Your task to perform on an android device: star an email in the gmail app Image 0: 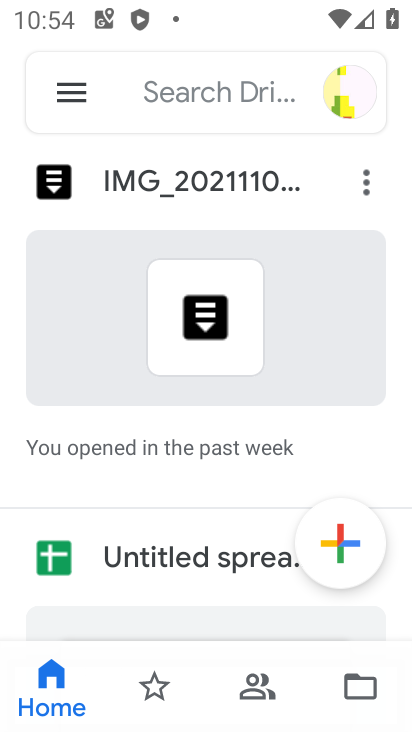
Step 0: press home button
Your task to perform on an android device: star an email in the gmail app Image 1: 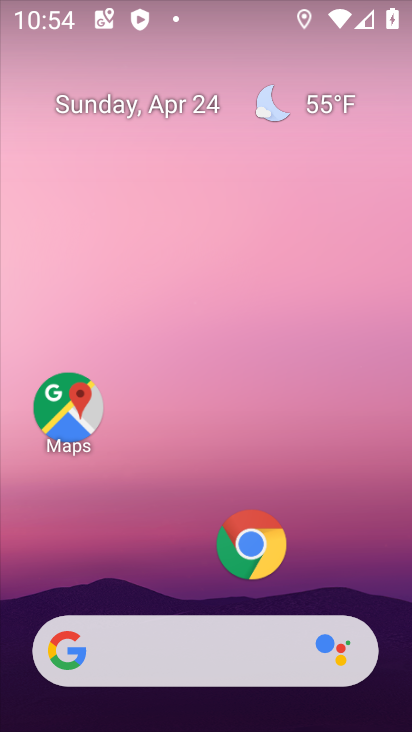
Step 1: drag from (182, 586) to (183, 229)
Your task to perform on an android device: star an email in the gmail app Image 2: 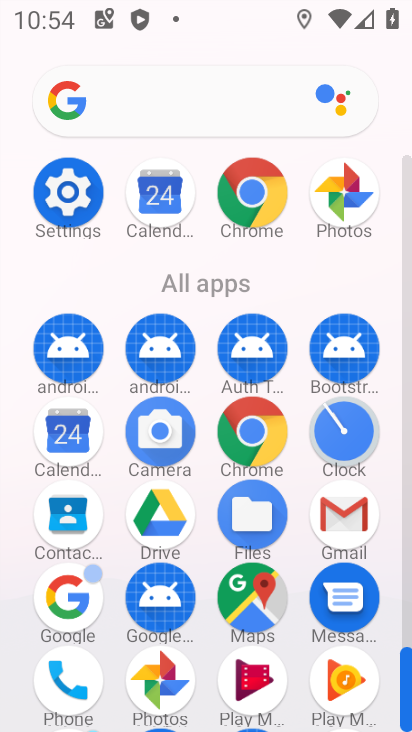
Step 2: click (330, 529)
Your task to perform on an android device: star an email in the gmail app Image 3: 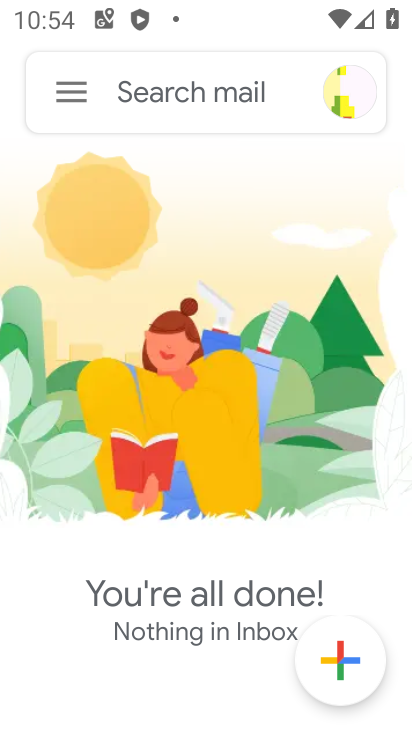
Step 3: click (65, 99)
Your task to perform on an android device: star an email in the gmail app Image 4: 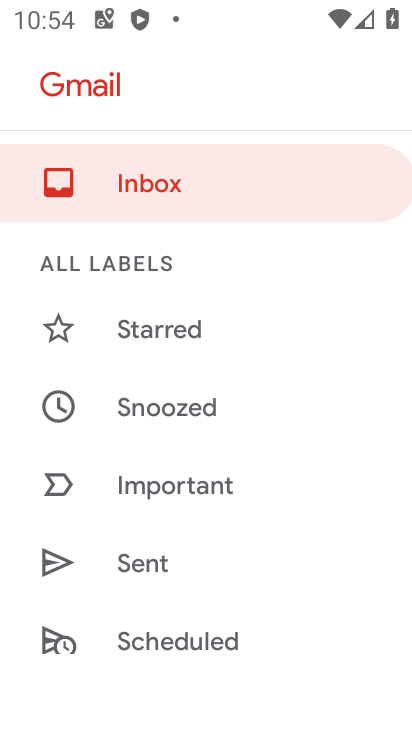
Step 4: click (179, 196)
Your task to perform on an android device: star an email in the gmail app Image 5: 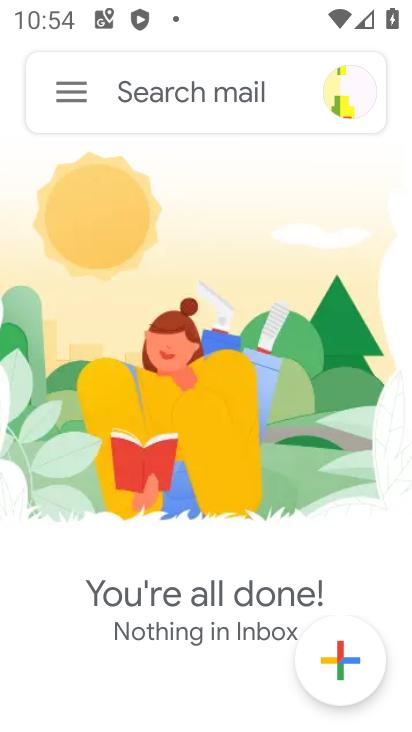
Step 5: task complete